Your task to perform on an android device: Open network settings Image 0: 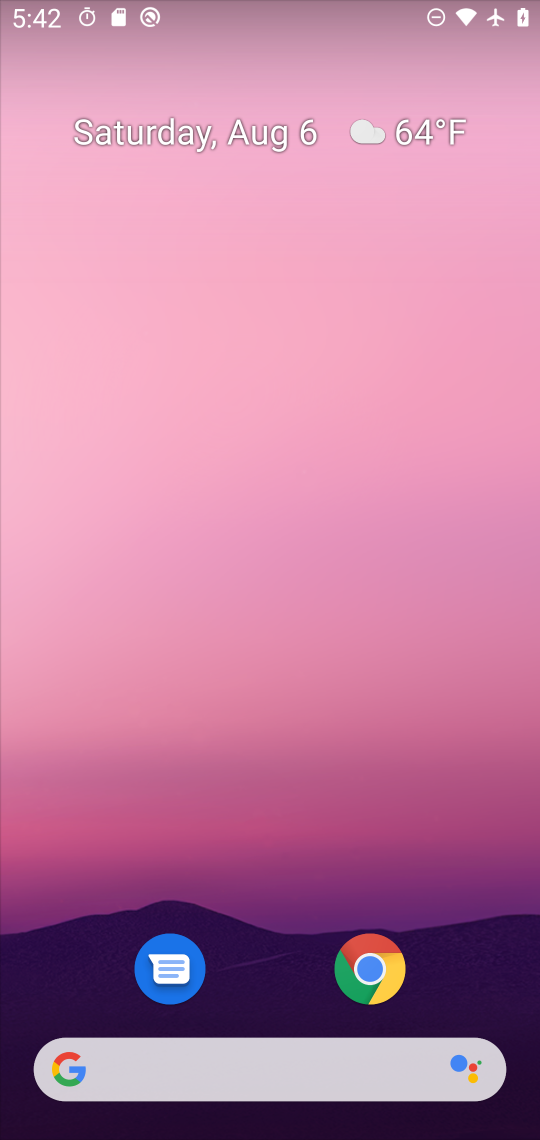
Step 0: press home button
Your task to perform on an android device: Open network settings Image 1: 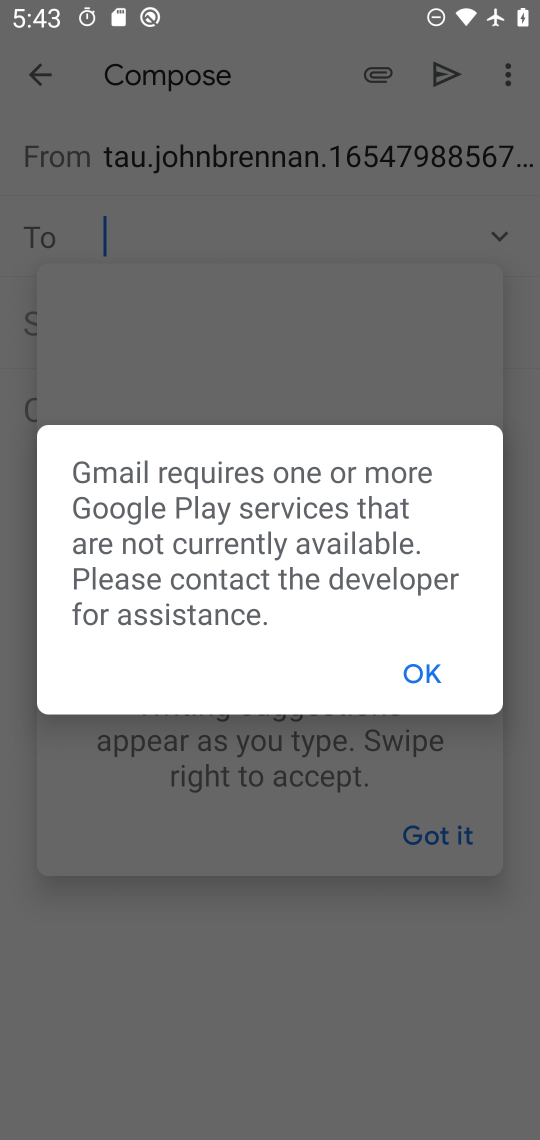
Step 1: press home button
Your task to perform on an android device: Open network settings Image 2: 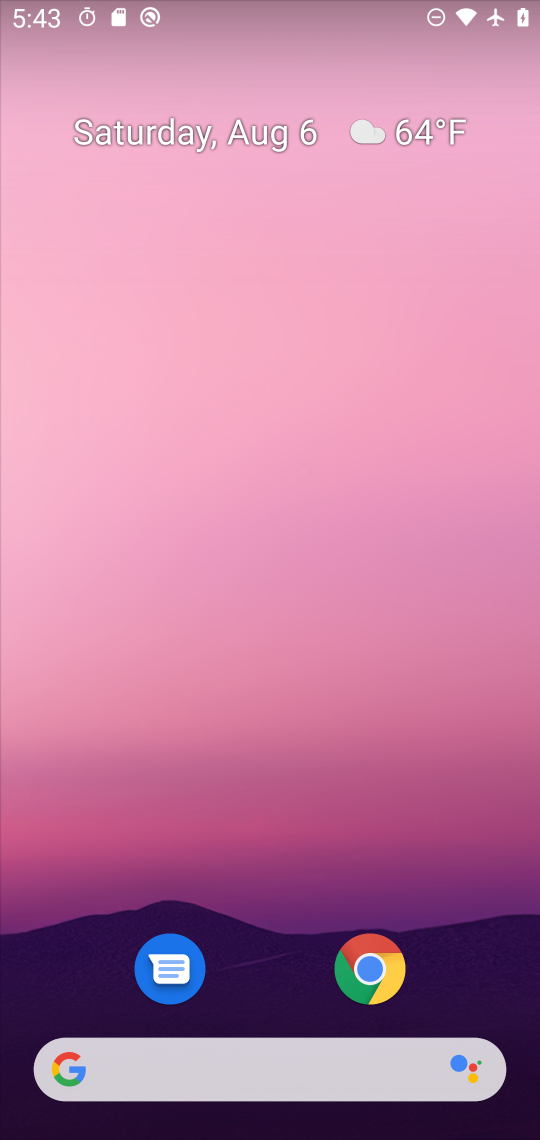
Step 2: drag from (301, 1009) to (509, 12)
Your task to perform on an android device: Open network settings Image 3: 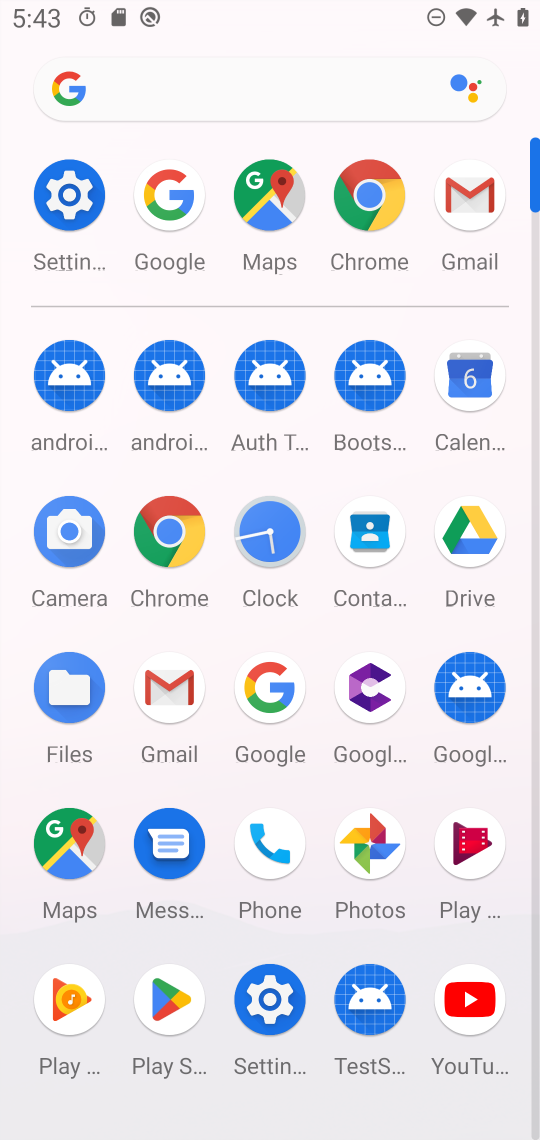
Step 3: click (55, 200)
Your task to perform on an android device: Open network settings Image 4: 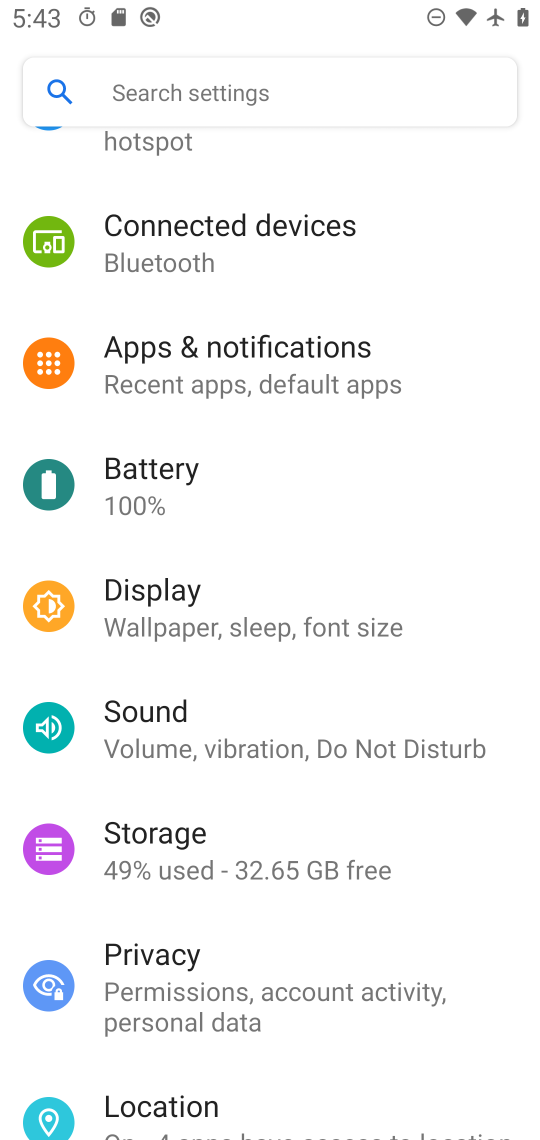
Step 4: drag from (427, 289) to (437, 1027)
Your task to perform on an android device: Open network settings Image 5: 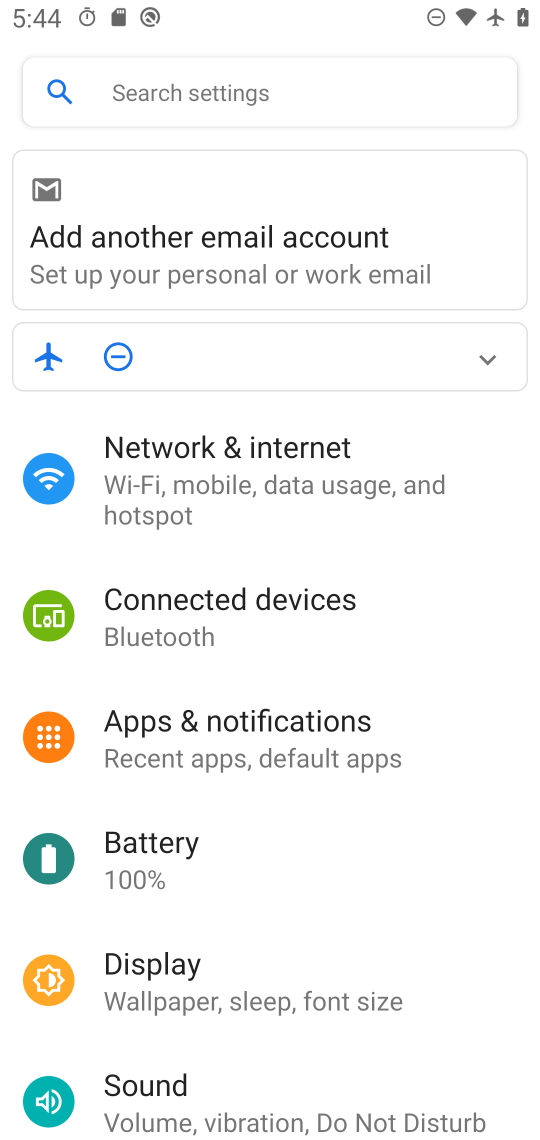
Step 5: click (198, 483)
Your task to perform on an android device: Open network settings Image 6: 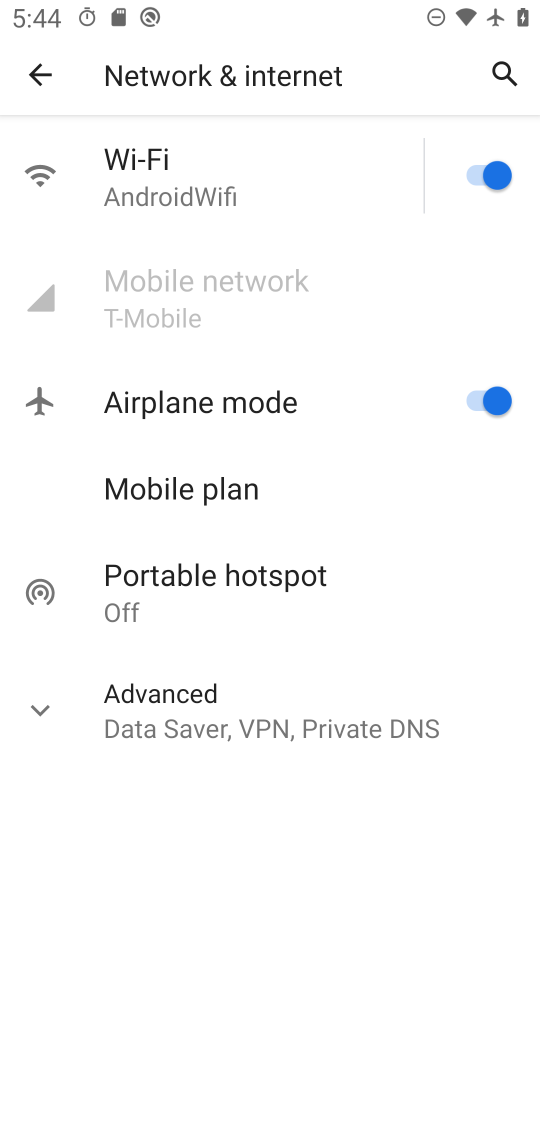
Step 6: task complete